Your task to perform on an android device: Go to ESPN.com Image 0: 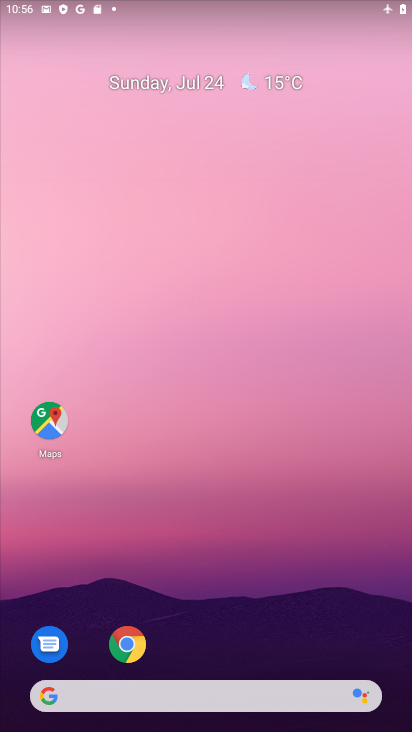
Step 0: drag from (224, 705) to (208, 43)
Your task to perform on an android device: Go to ESPN.com Image 1: 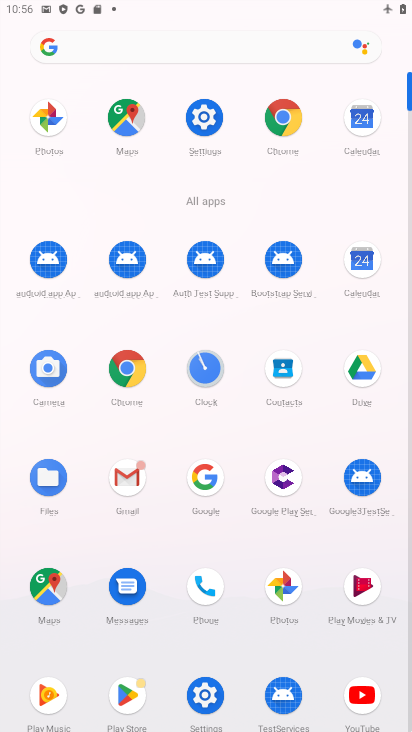
Step 1: click (125, 368)
Your task to perform on an android device: Go to ESPN.com Image 2: 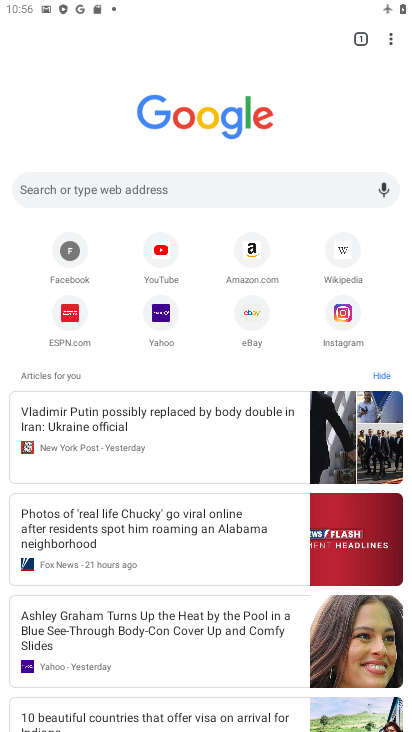
Step 2: click (64, 313)
Your task to perform on an android device: Go to ESPN.com Image 3: 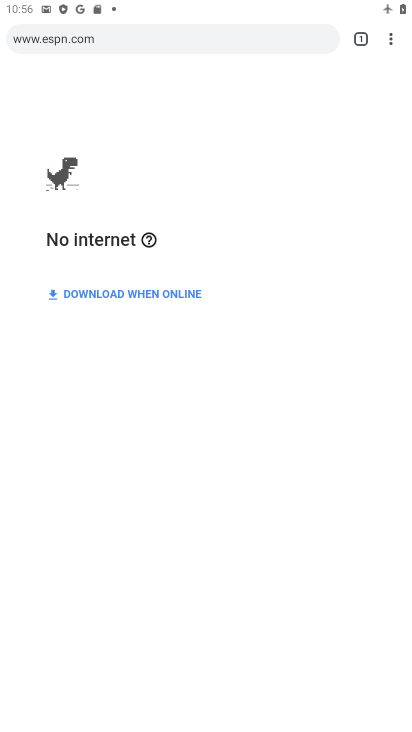
Step 3: task complete